Your task to perform on an android device: Go to Wikipedia Image 0: 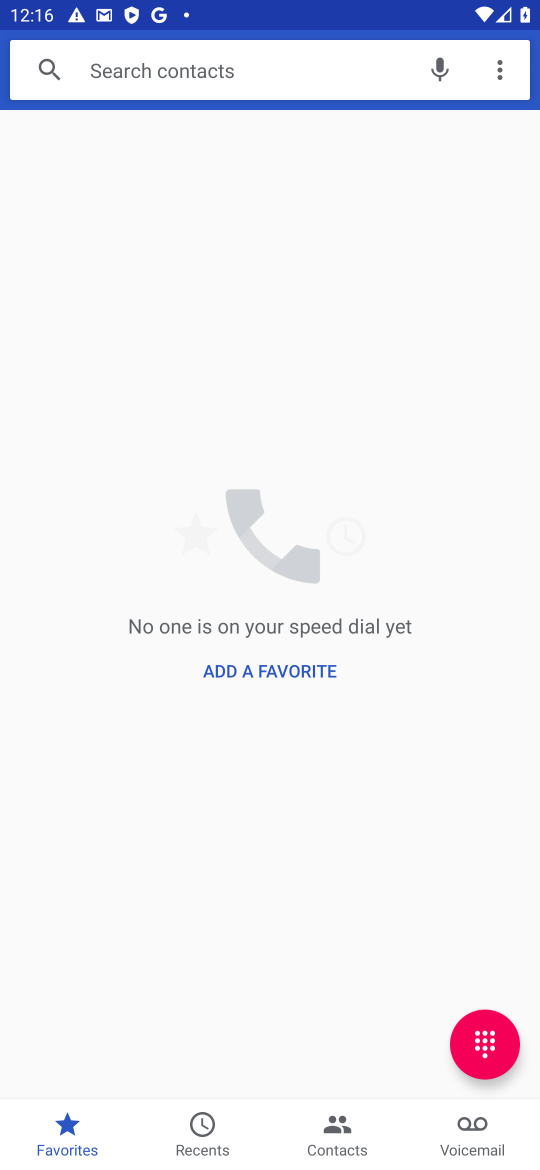
Step 0: press home button
Your task to perform on an android device: Go to Wikipedia Image 1: 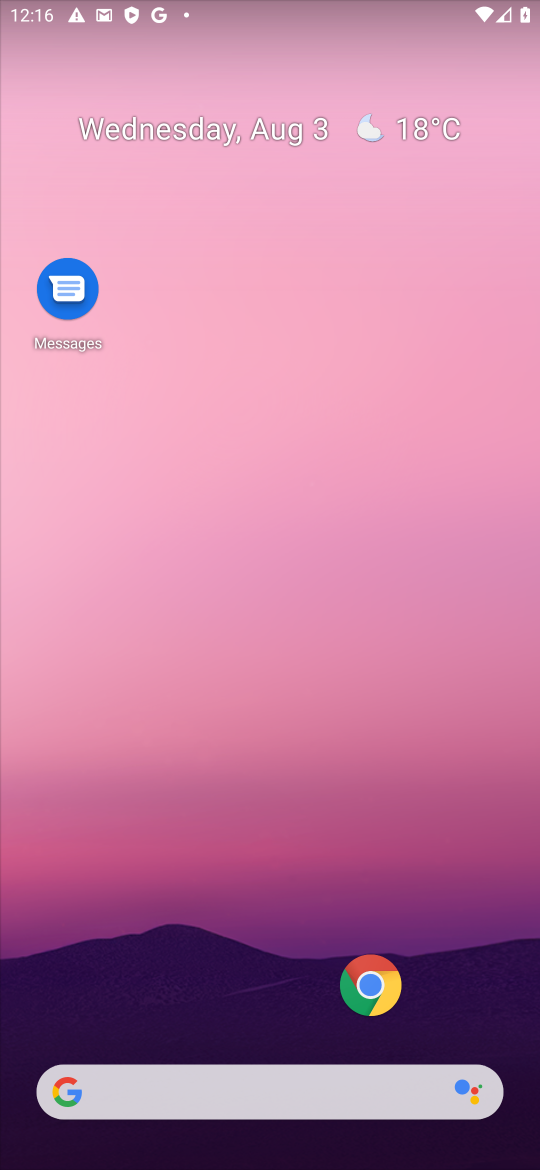
Step 1: click (293, 1077)
Your task to perform on an android device: Go to Wikipedia Image 2: 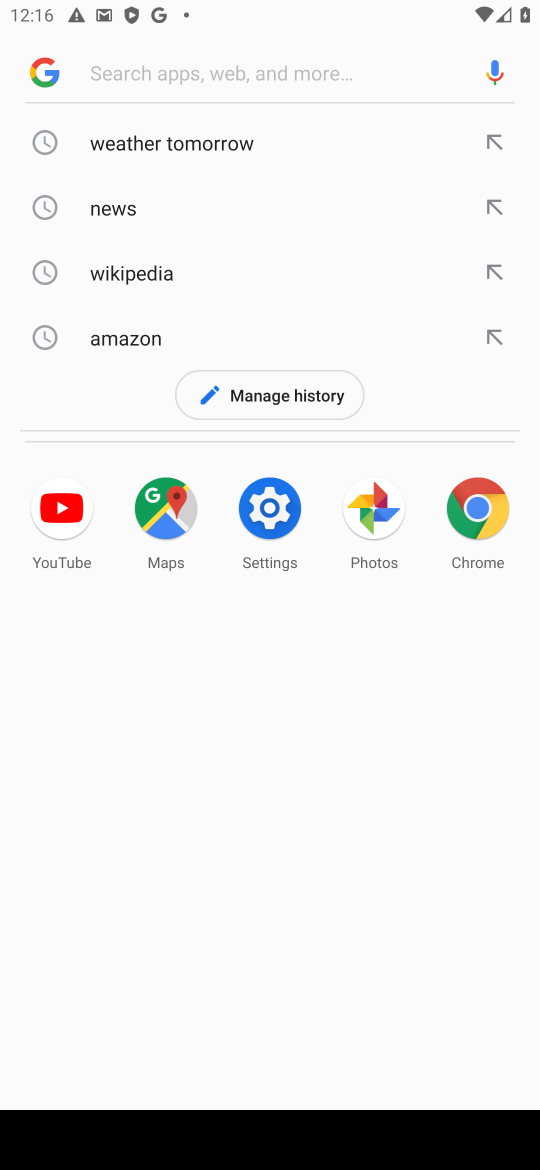
Step 2: click (259, 297)
Your task to perform on an android device: Go to Wikipedia Image 3: 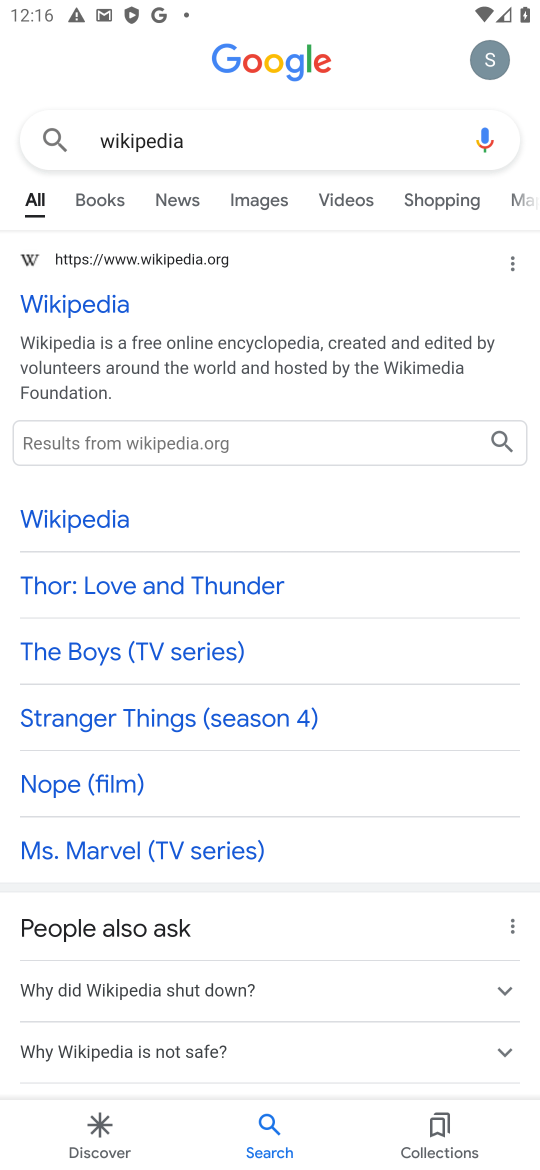
Step 3: click (115, 545)
Your task to perform on an android device: Go to Wikipedia Image 4: 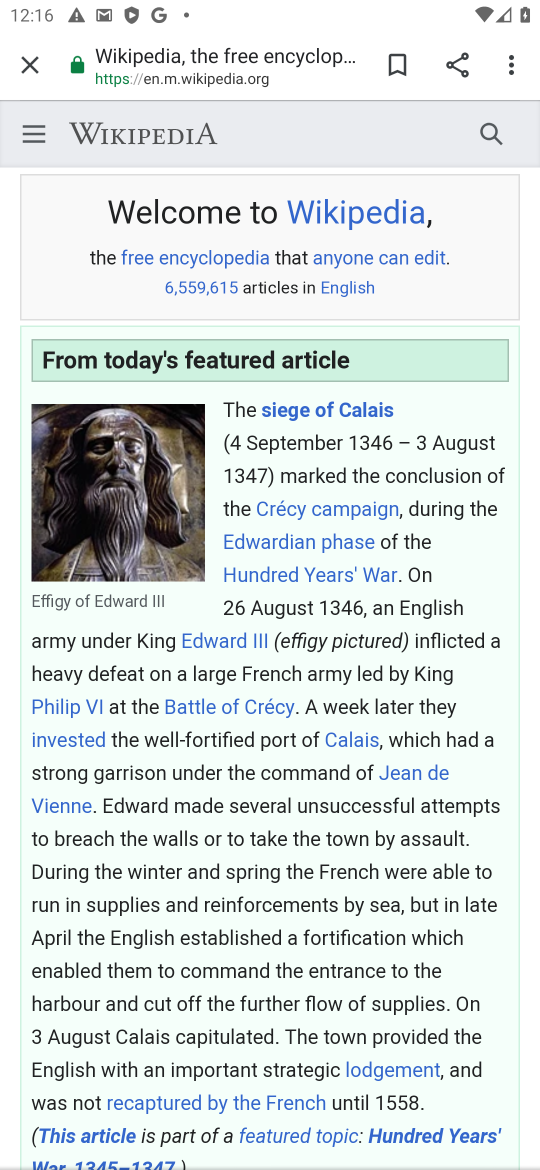
Step 4: task complete